Your task to perform on an android device: Go to Google maps Image 0: 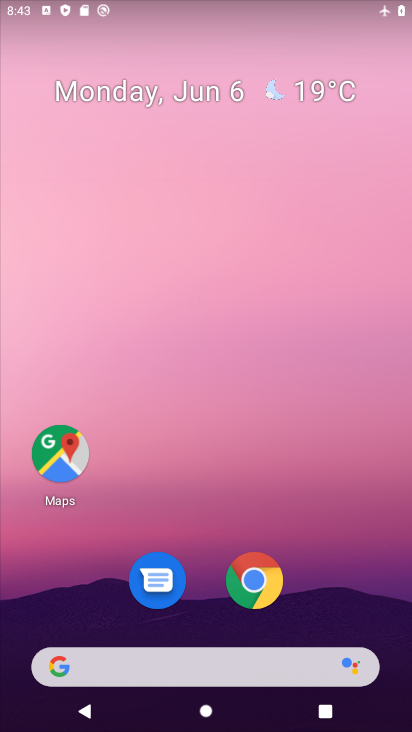
Step 0: drag from (258, 605) to (307, 16)
Your task to perform on an android device: Go to Google maps Image 1: 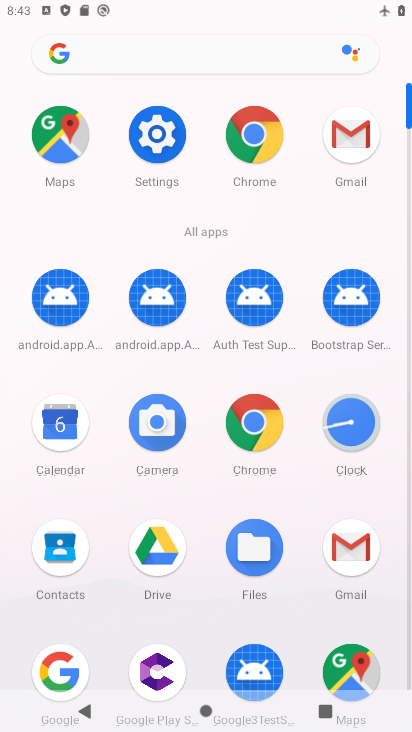
Step 1: click (344, 665)
Your task to perform on an android device: Go to Google maps Image 2: 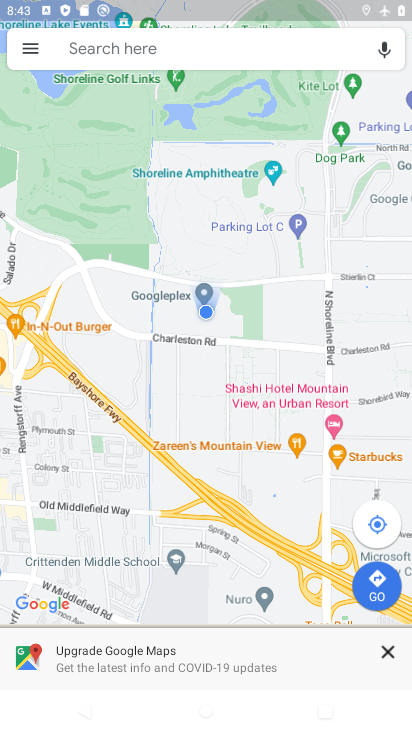
Step 2: task complete